Your task to perform on an android device: Open settings Image 0: 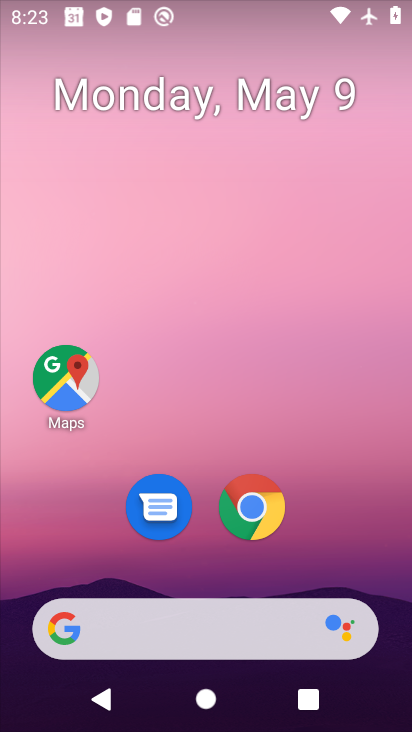
Step 0: click (175, 590)
Your task to perform on an android device: Open settings Image 1: 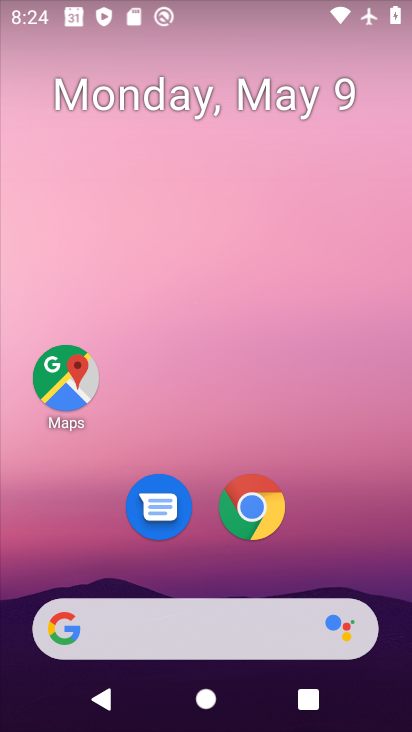
Step 1: drag from (211, 582) to (247, 17)
Your task to perform on an android device: Open settings Image 2: 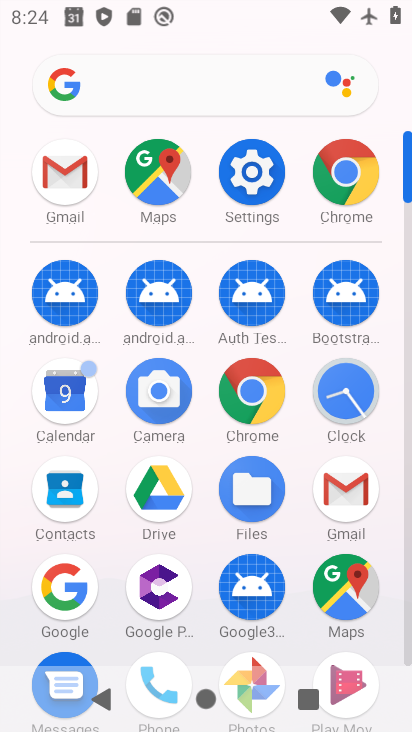
Step 2: click (266, 167)
Your task to perform on an android device: Open settings Image 3: 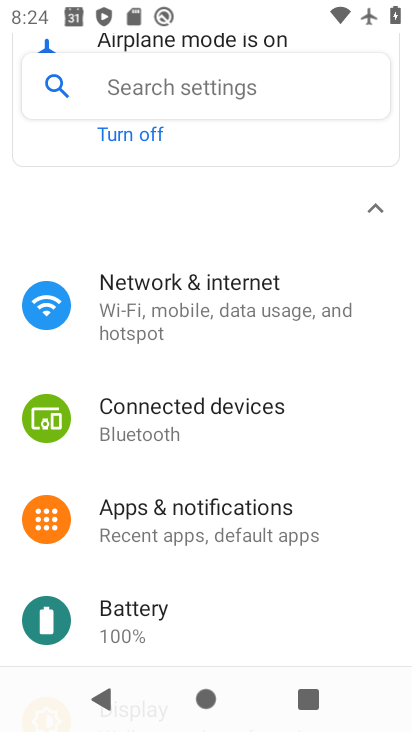
Step 3: task complete